Your task to perform on an android device: choose inbox layout in the gmail app Image 0: 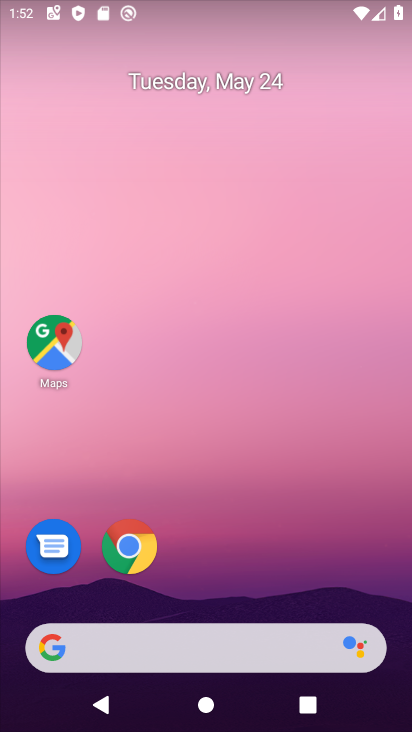
Step 0: drag from (179, 631) to (265, 144)
Your task to perform on an android device: choose inbox layout in the gmail app Image 1: 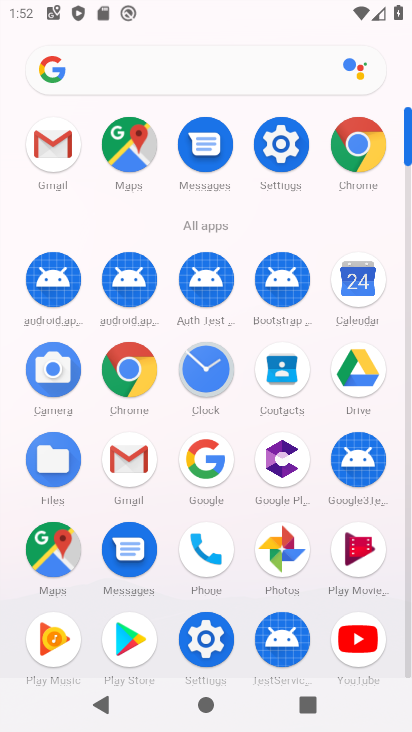
Step 1: click (126, 468)
Your task to perform on an android device: choose inbox layout in the gmail app Image 2: 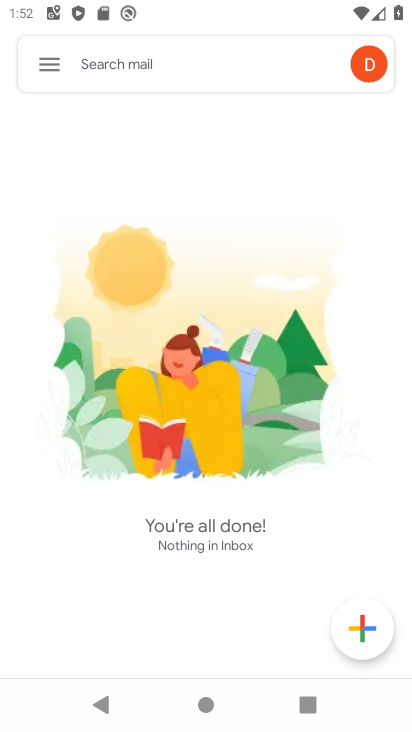
Step 2: click (60, 53)
Your task to perform on an android device: choose inbox layout in the gmail app Image 3: 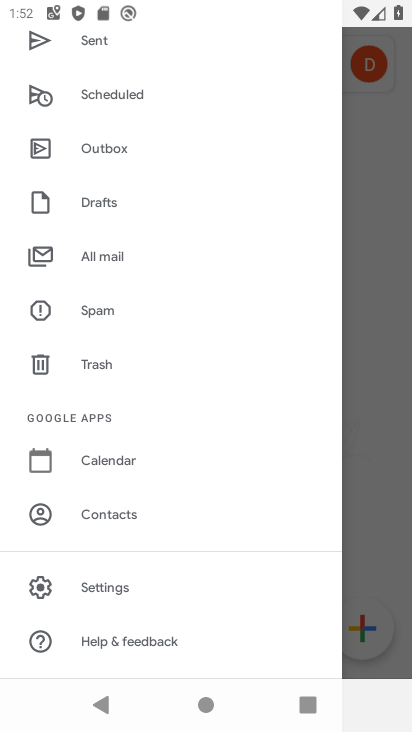
Step 3: click (149, 586)
Your task to perform on an android device: choose inbox layout in the gmail app Image 4: 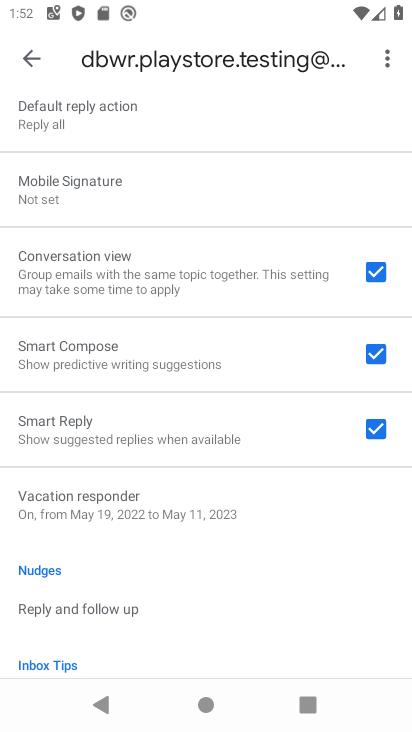
Step 4: drag from (157, 192) to (151, 649)
Your task to perform on an android device: choose inbox layout in the gmail app Image 5: 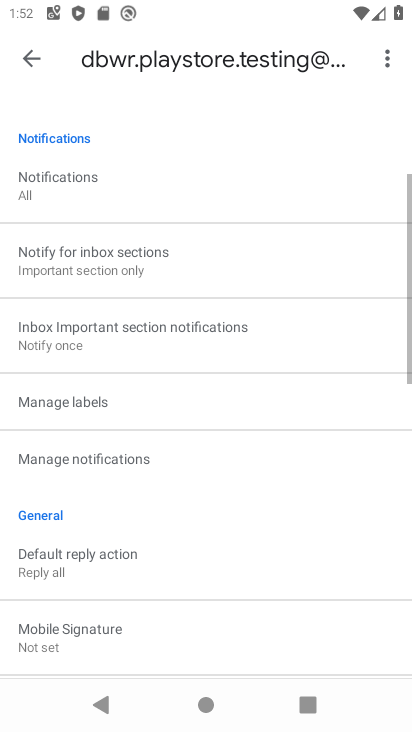
Step 5: drag from (154, 199) to (153, 572)
Your task to perform on an android device: choose inbox layout in the gmail app Image 6: 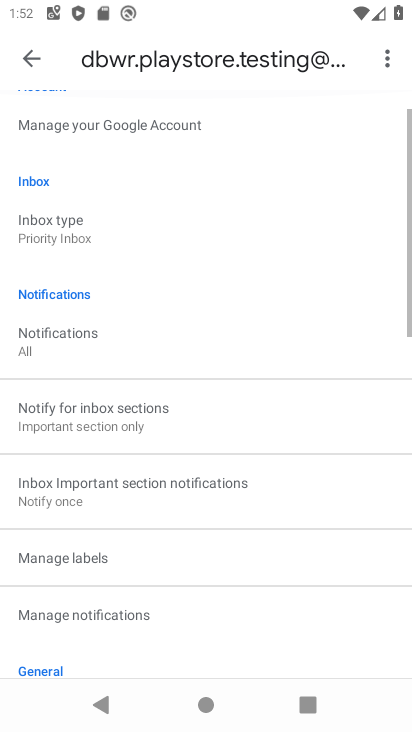
Step 6: click (104, 270)
Your task to perform on an android device: choose inbox layout in the gmail app Image 7: 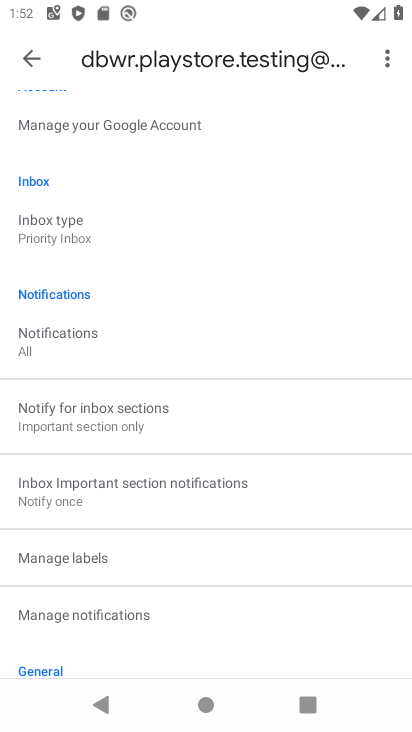
Step 7: click (108, 238)
Your task to perform on an android device: choose inbox layout in the gmail app Image 8: 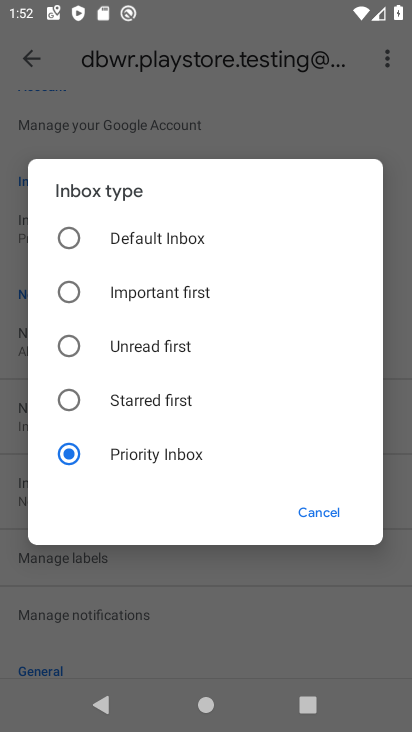
Step 8: click (148, 244)
Your task to perform on an android device: choose inbox layout in the gmail app Image 9: 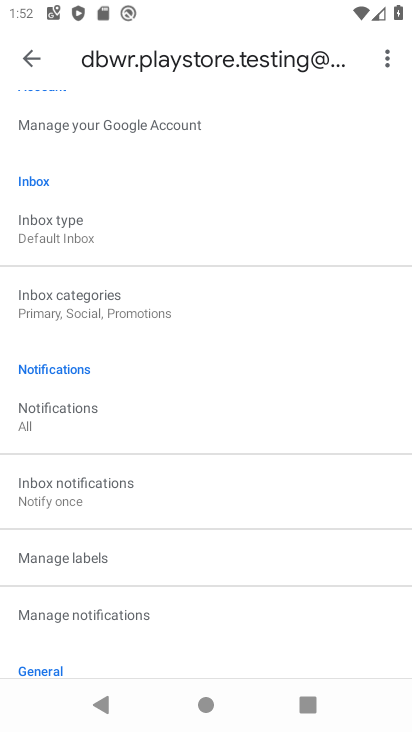
Step 9: task complete